Your task to perform on an android device: open app "NewsBreak: Local News & Alerts" (install if not already installed) and go to login screen Image 0: 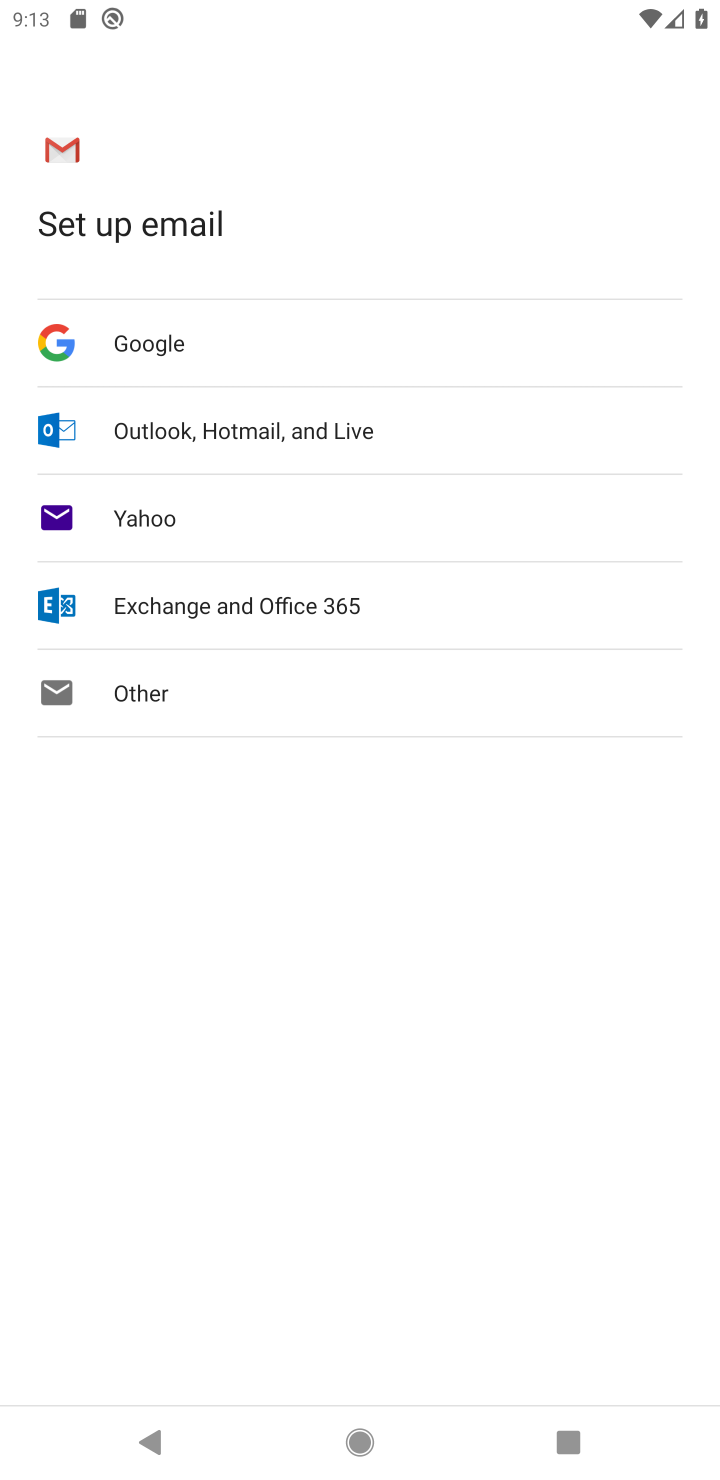
Step 0: press home button
Your task to perform on an android device: open app "NewsBreak: Local News & Alerts" (install if not already installed) and go to login screen Image 1: 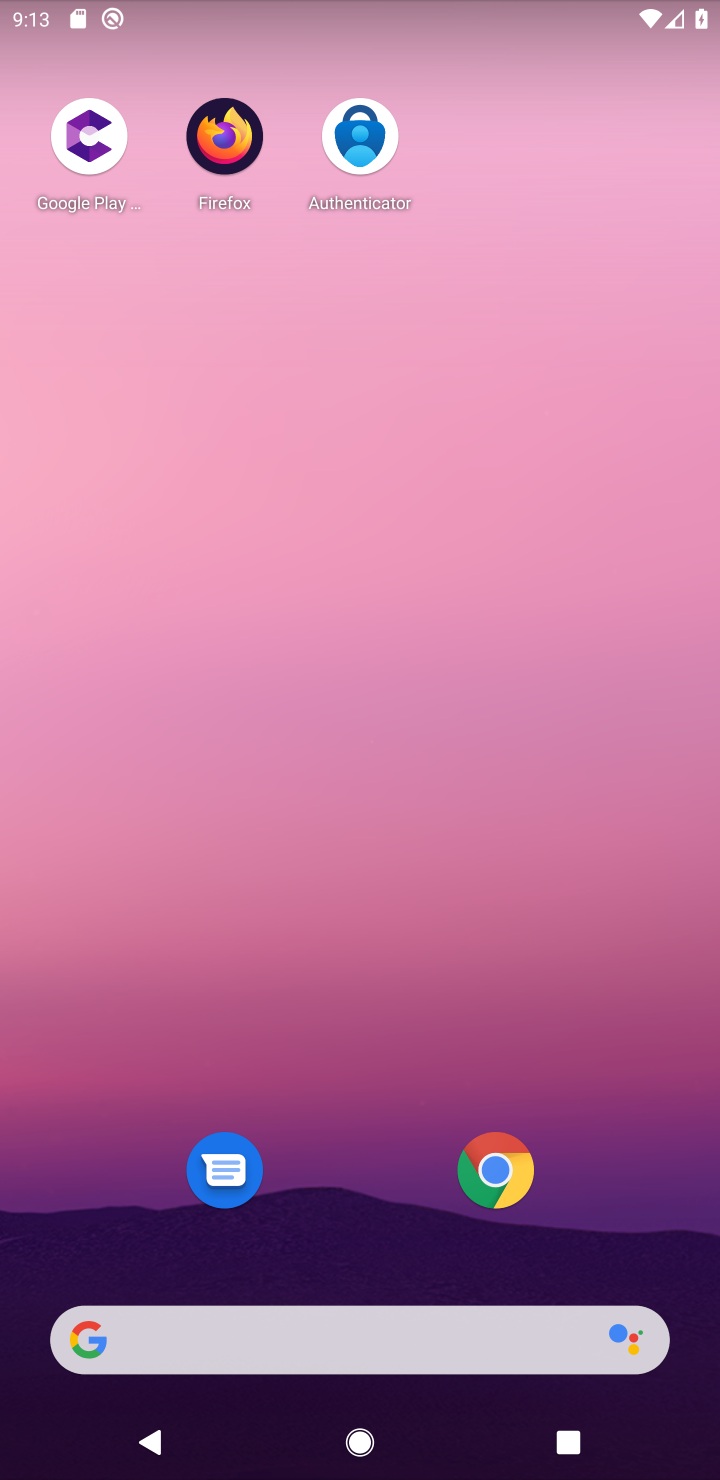
Step 1: drag from (450, 1316) to (522, 29)
Your task to perform on an android device: open app "NewsBreak: Local News & Alerts" (install if not already installed) and go to login screen Image 2: 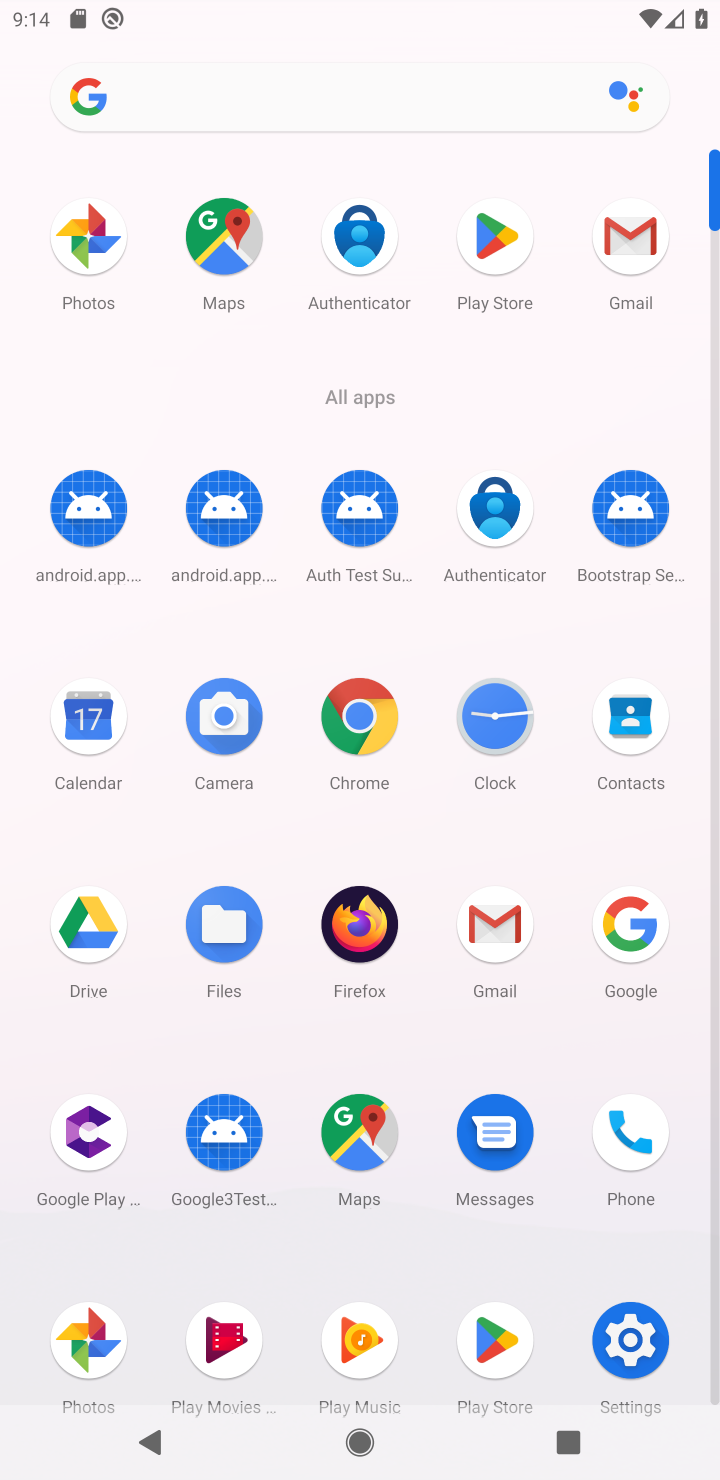
Step 2: click (519, 234)
Your task to perform on an android device: open app "NewsBreak: Local News & Alerts" (install if not already installed) and go to login screen Image 3: 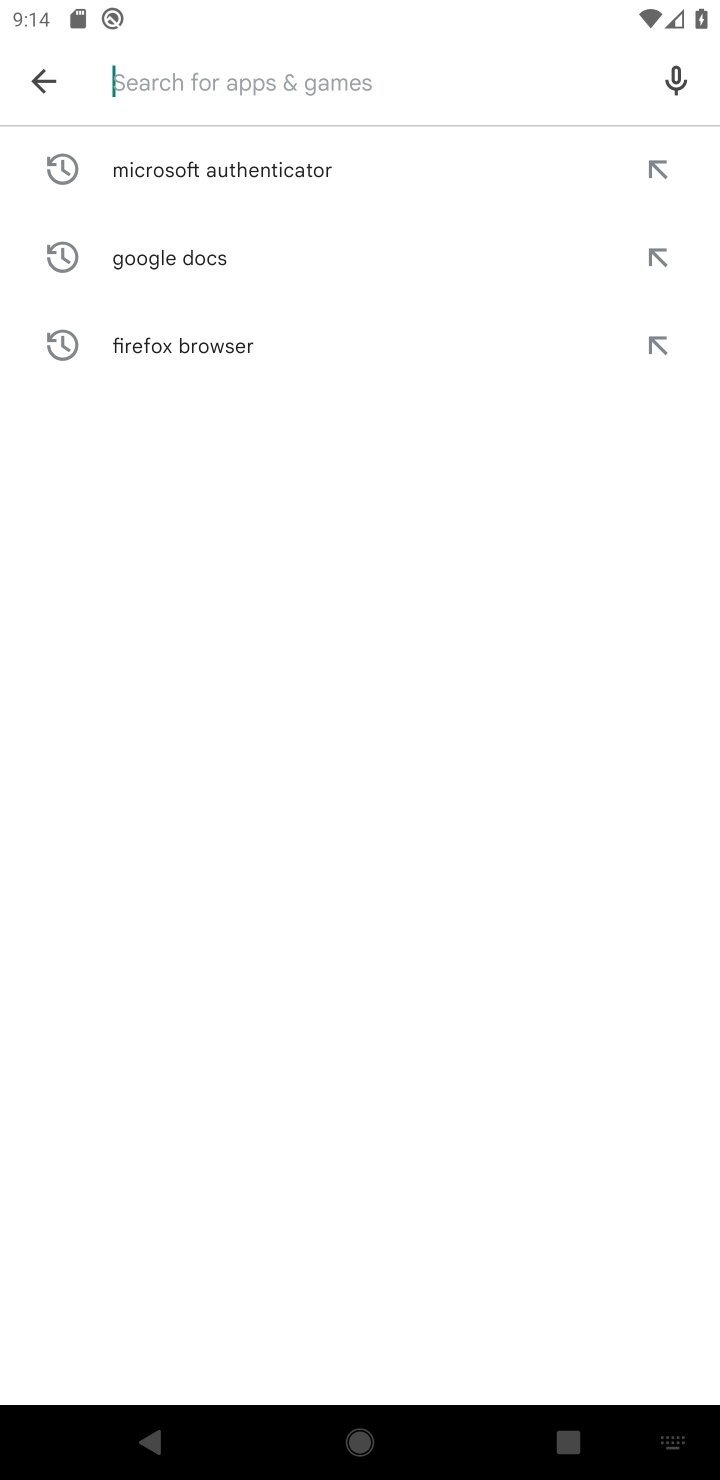
Step 3: type "NewsBreak: Local News & Alerts"
Your task to perform on an android device: open app "NewsBreak: Local News & Alerts" (install if not already installed) and go to login screen Image 4: 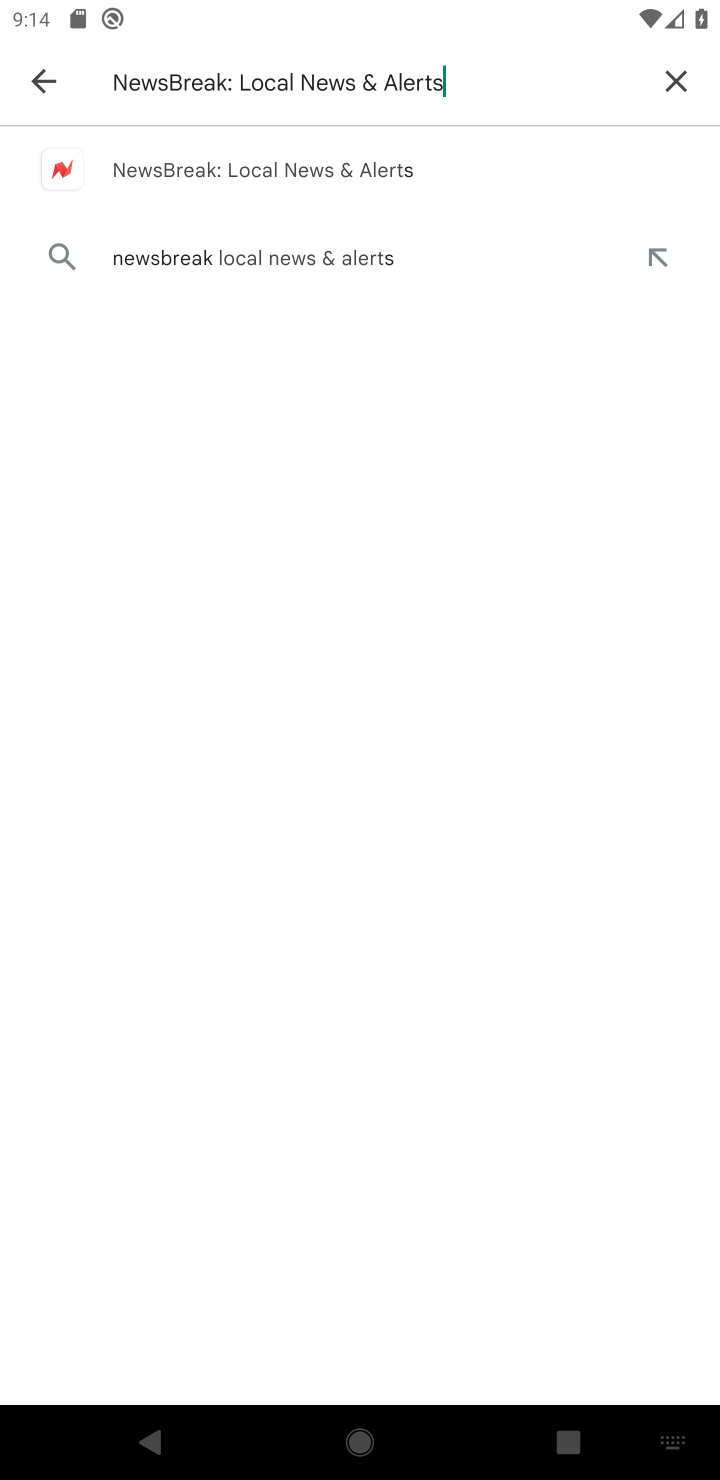
Step 4: type ""
Your task to perform on an android device: open app "NewsBreak: Local News & Alerts" (install if not already installed) and go to login screen Image 5: 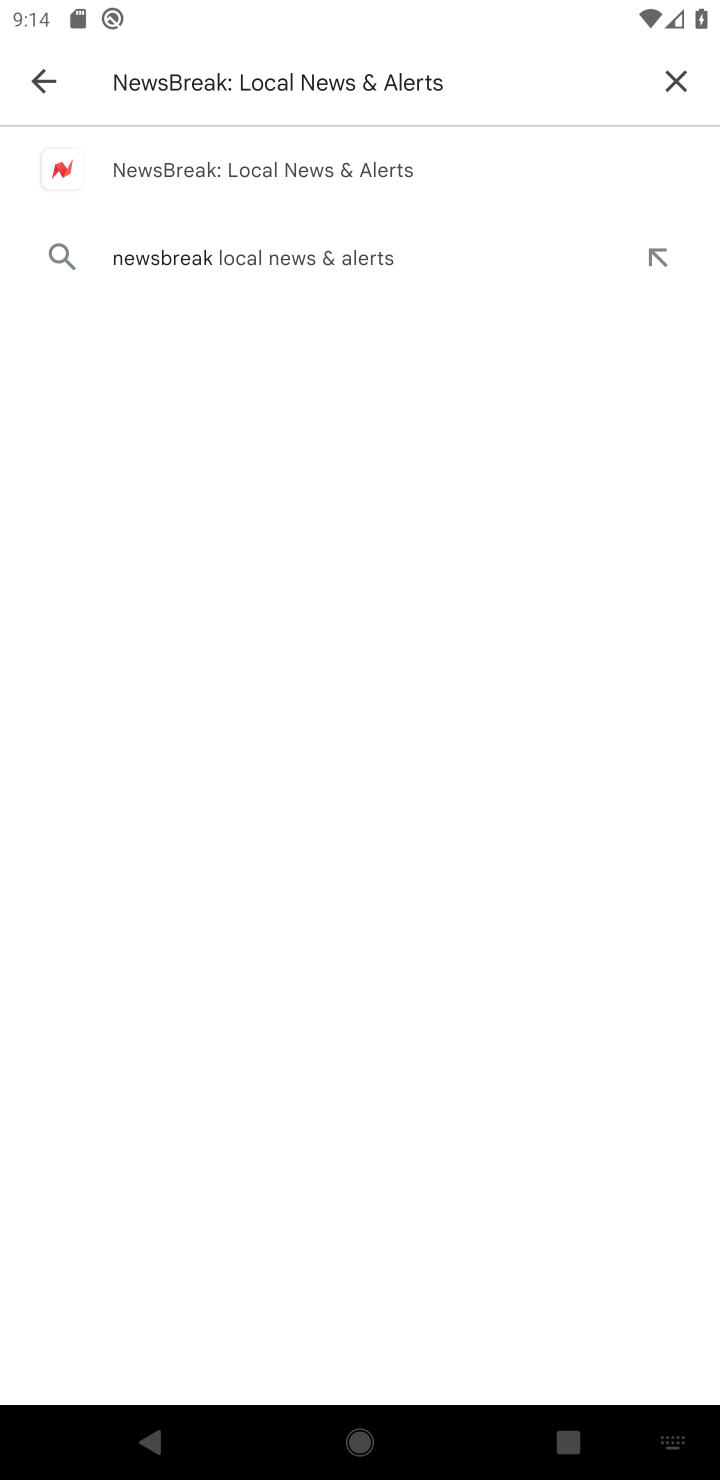
Step 5: click (257, 157)
Your task to perform on an android device: open app "NewsBreak: Local News & Alerts" (install if not already installed) and go to login screen Image 6: 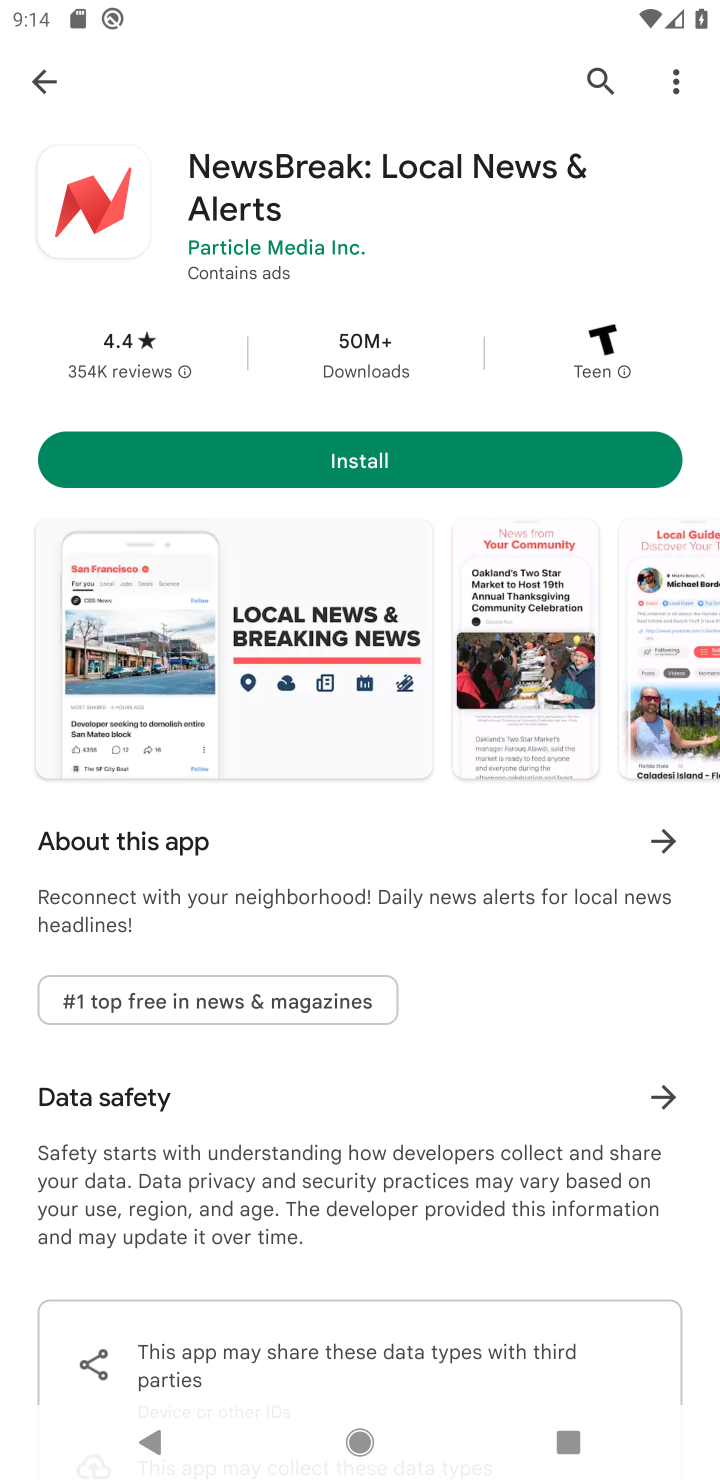
Step 6: click (170, 454)
Your task to perform on an android device: open app "NewsBreak: Local News & Alerts" (install if not already installed) and go to login screen Image 7: 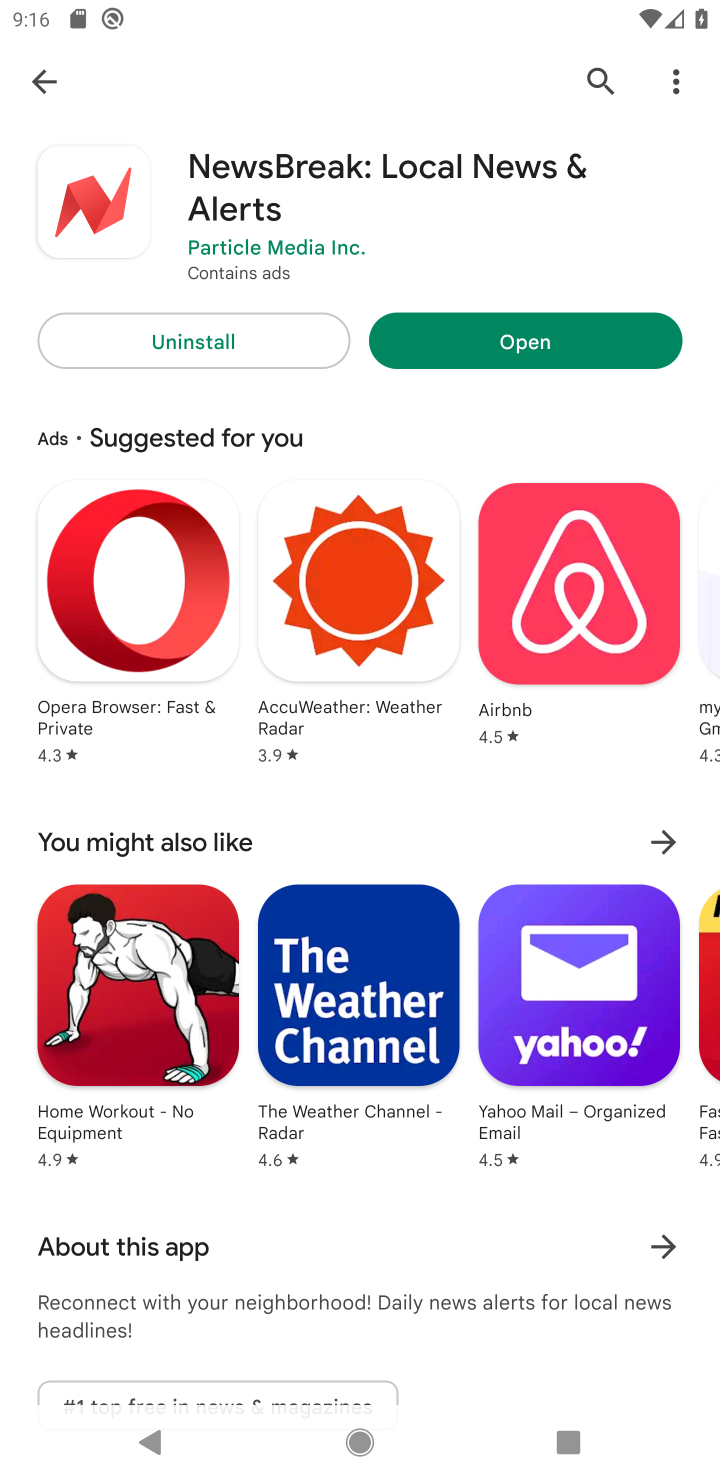
Step 7: click (563, 355)
Your task to perform on an android device: open app "NewsBreak: Local News & Alerts" (install if not already installed) and go to login screen Image 8: 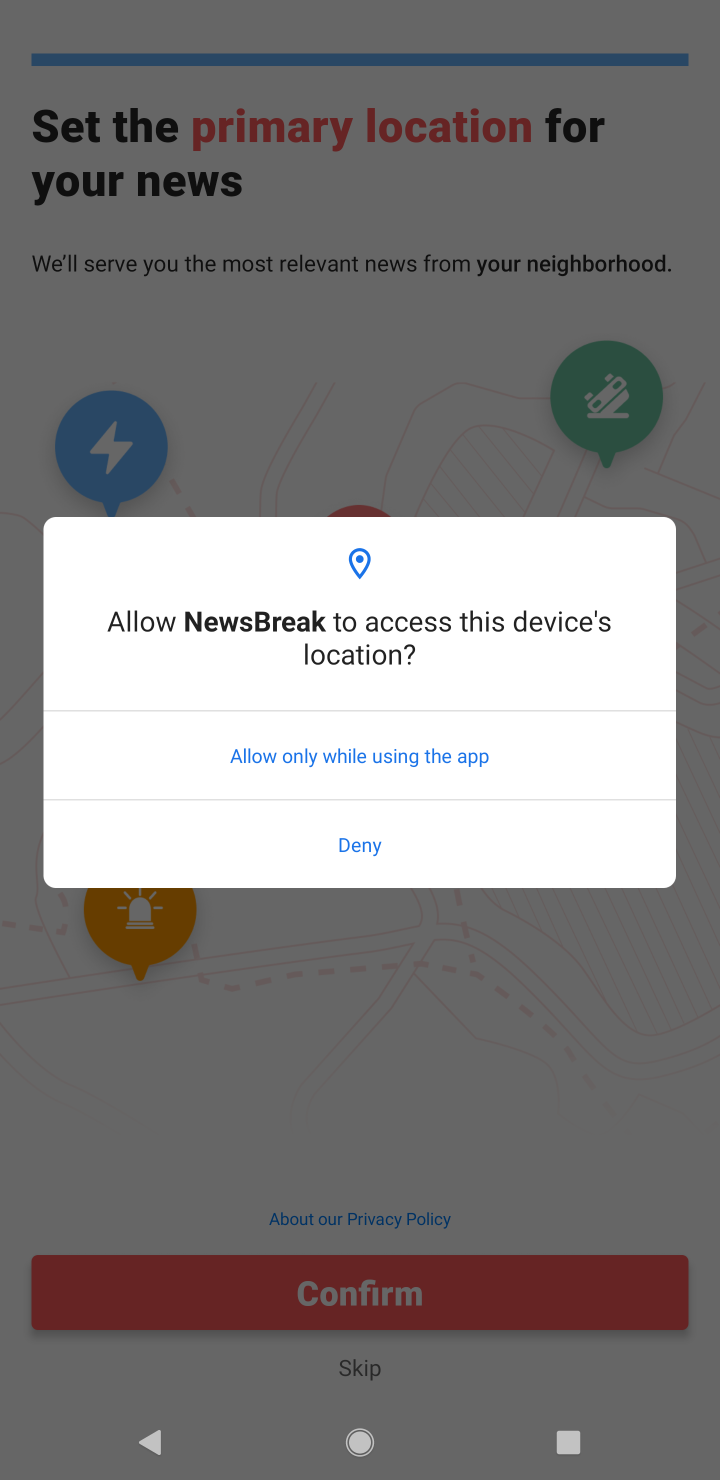
Step 8: click (339, 836)
Your task to perform on an android device: open app "NewsBreak: Local News & Alerts" (install if not already installed) and go to login screen Image 9: 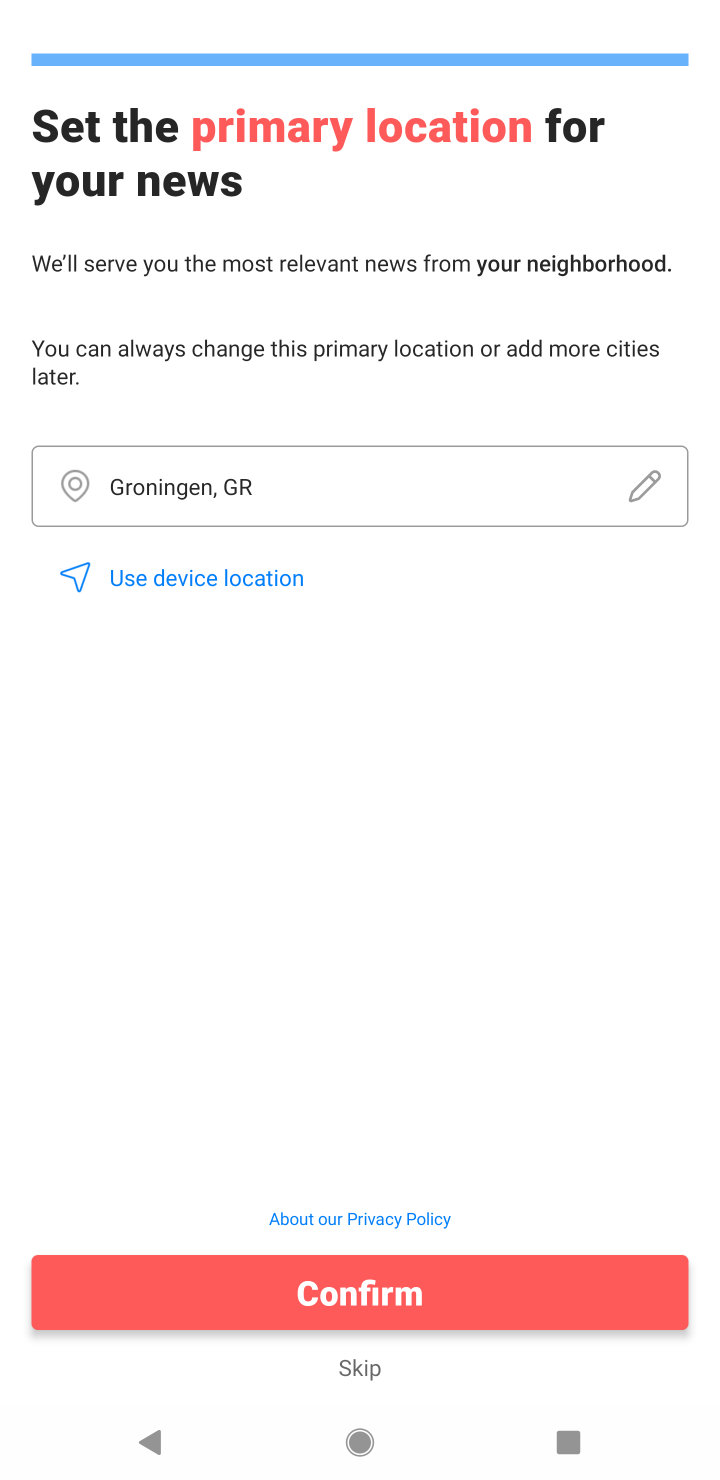
Step 9: task complete